Your task to perform on an android device: turn smart compose on in the gmail app Image 0: 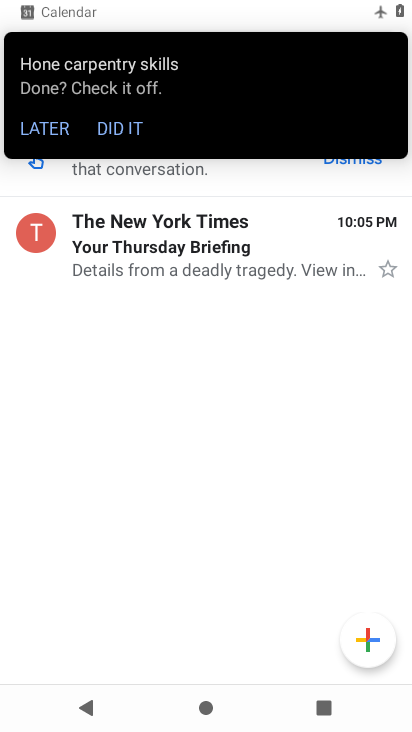
Step 0: click (111, 132)
Your task to perform on an android device: turn smart compose on in the gmail app Image 1: 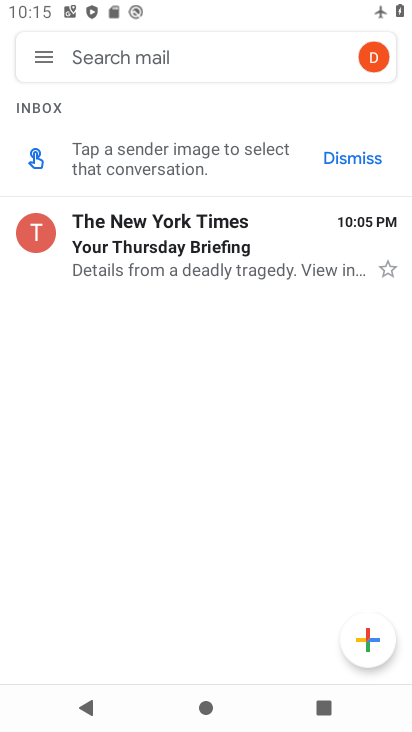
Step 1: click (49, 68)
Your task to perform on an android device: turn smart compose on in the gmail app Image 2: 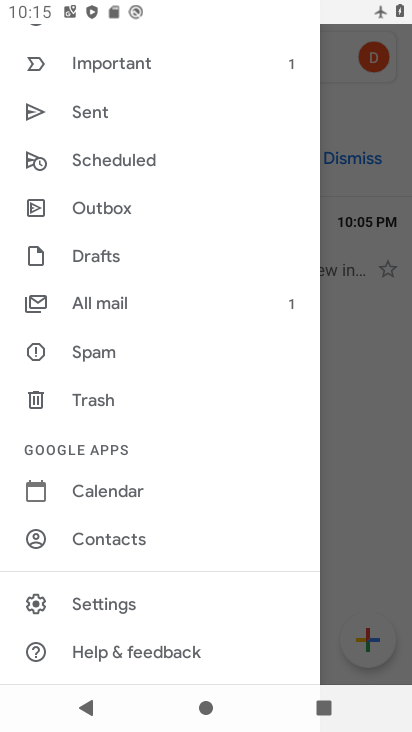
Step 2: click (112, 597)
Your task to perform on an android device: turn smart compose on in the gmail app Image 3: 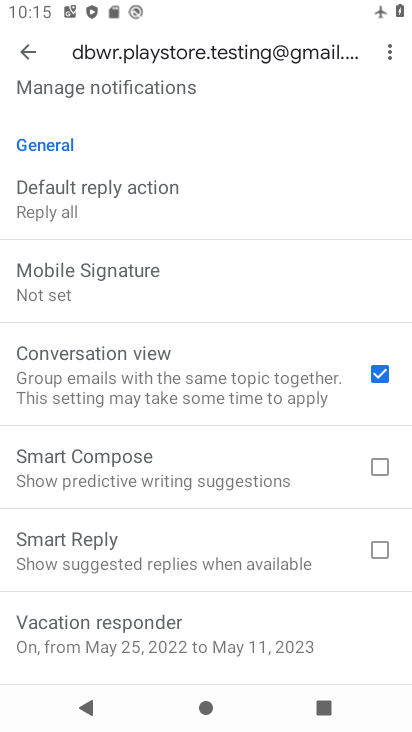
Step 3: click (229, 456)
Your task to perform on an android device: turn smart compose on in the gmail app Image 4: 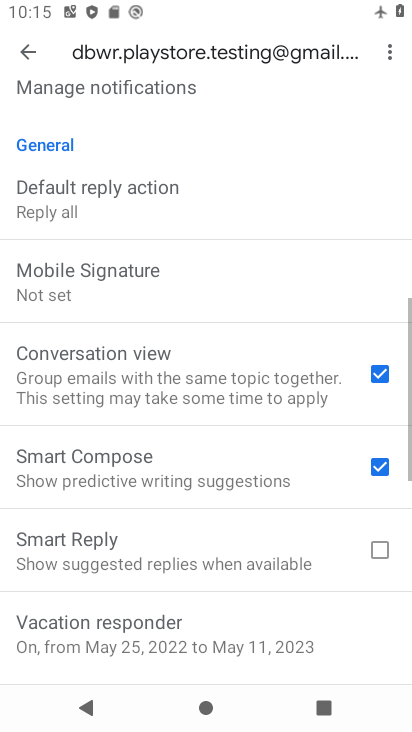
Step 4: task complete